Your task to perform on an android device: toggle show notifications on the lock screen Image 0: 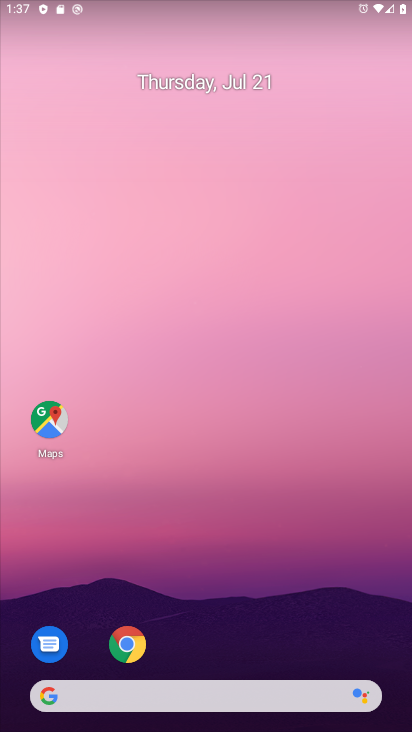
Step 0: drag from (224, 566) to (234, 100)
Your task to perform on an android device: toggle show notifications on the lock screen Image 1: 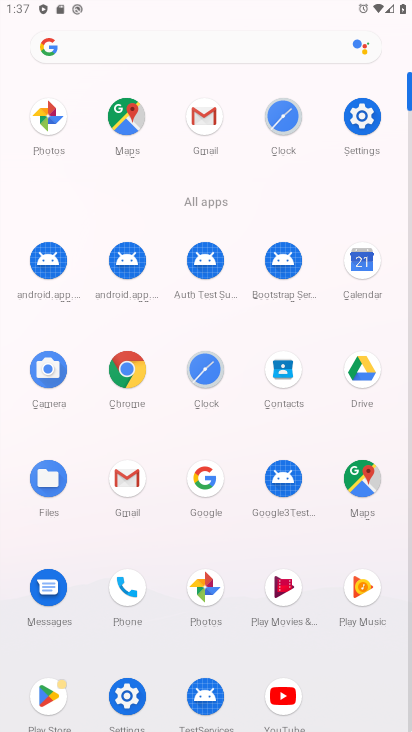
Step 1: click (361, 119)
Your task to perform on an android device: toggle show notifications on the lock screen Image 2: 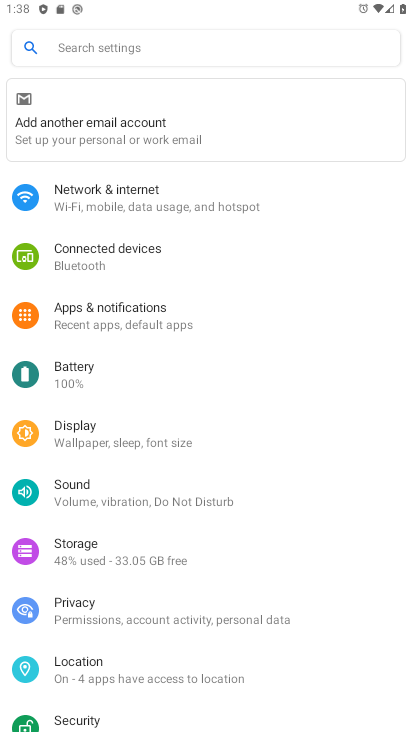
Step 2: click (92, 599)
Your task to perform on an android device: toggle show notifications on the lock screen Image 3: 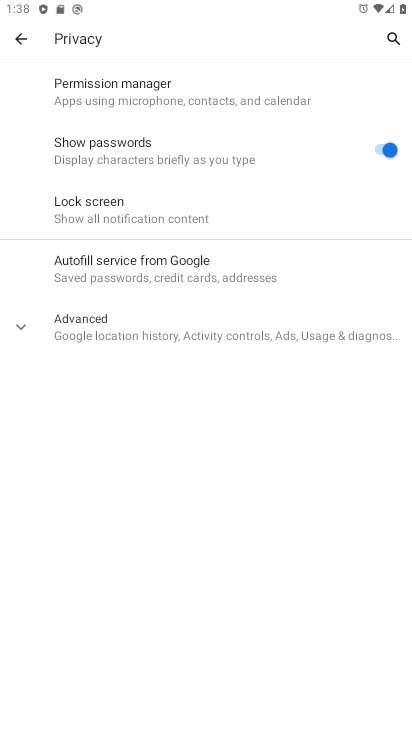
Step 3: click (81, 199)
Your task to perform on an android device: toggle show notifications on the lock screen Image 4: 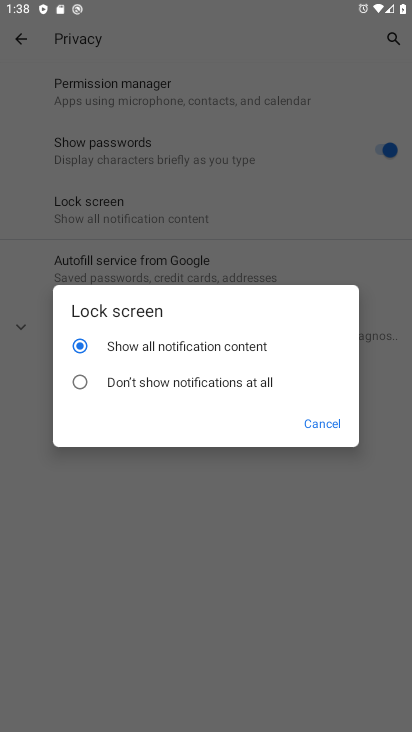
Step 4: click (162, 383)
Your task to perform on an android device: toggle show notifications on the lock screen Image 5: 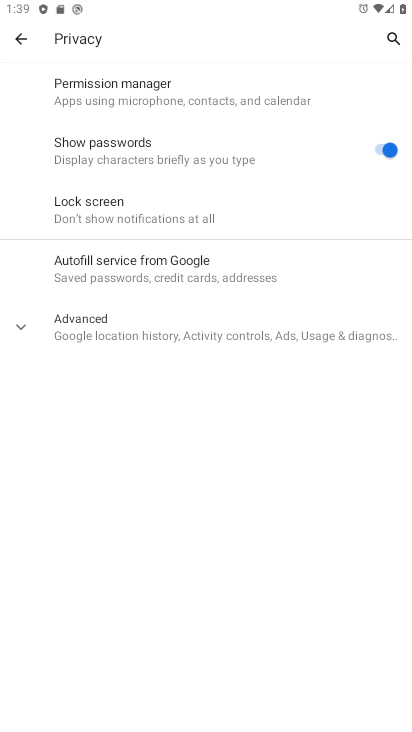
Step 5: task complete